Your task to perform on an android device: When is my next meeting? Image 0: 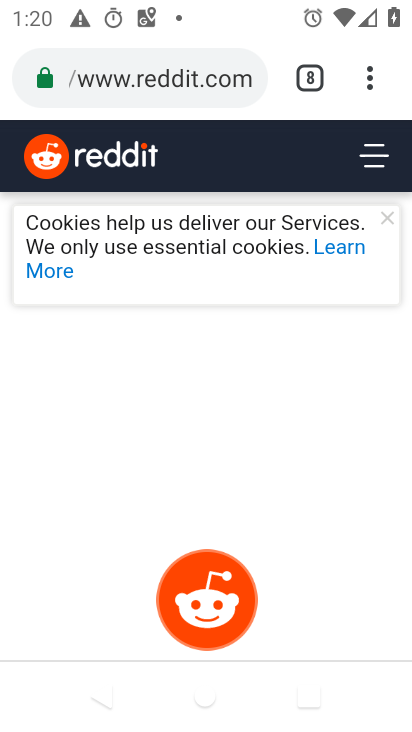
Step 0: press back button
Your task to perform on an android device: When is my next meeting? Image 1: 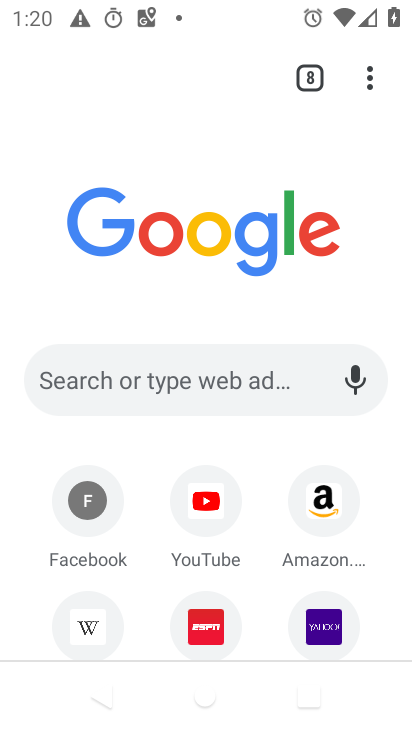
Step 1: press back button
Your task to perform on an android device: When is my next meeting? Image 2: 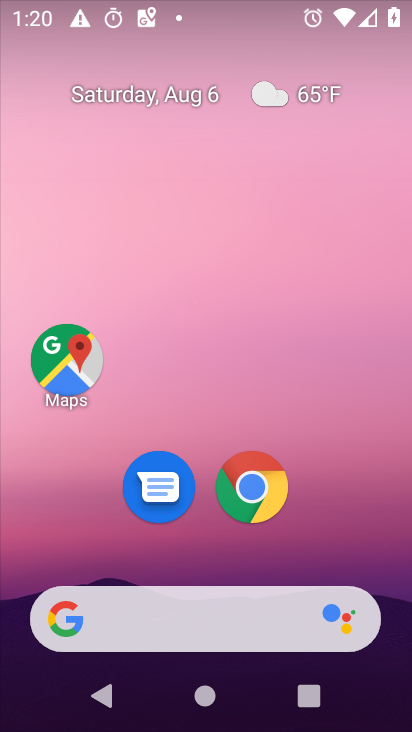
Step 2: drag from (204, 573) to (224, 36)
Your task to perform on an android device: When is my next meeting? Image 3: 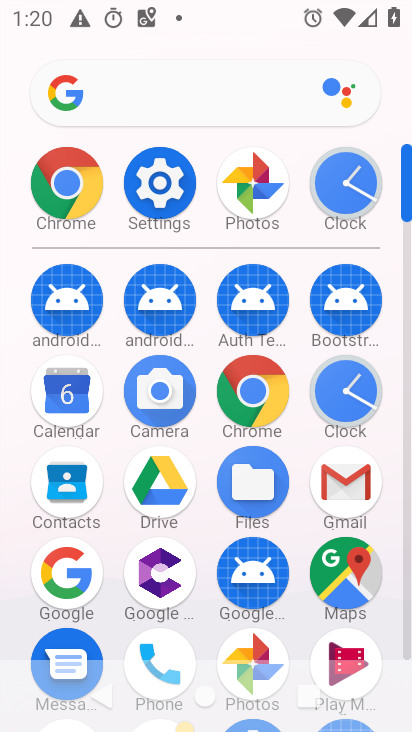
Step 3: click (62, 397)
Your task to perform on an android device: When is my next meeting? Image 4: 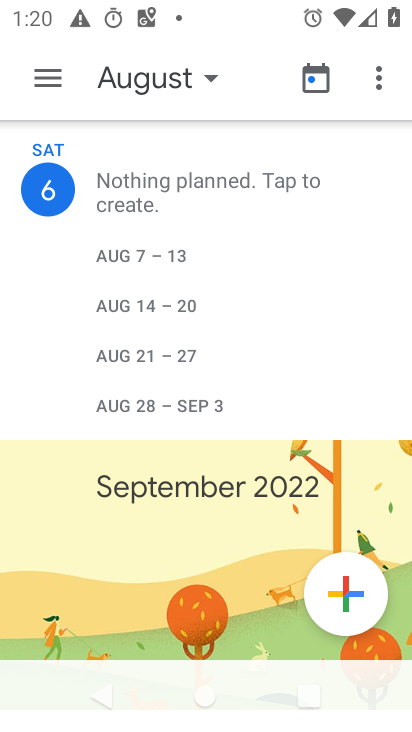
Step 4: task complete